Your task to perform on an android device: Go to CNN.com Image 0: 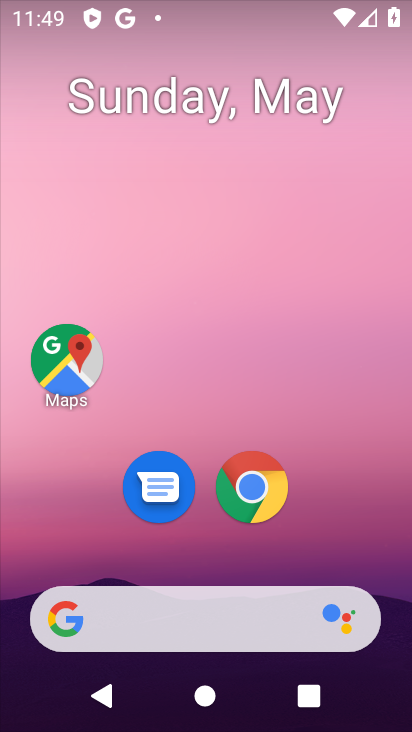
Step 0: click (254, 476)
Your task to perform on an android device: Go to CNN.com Image 1: 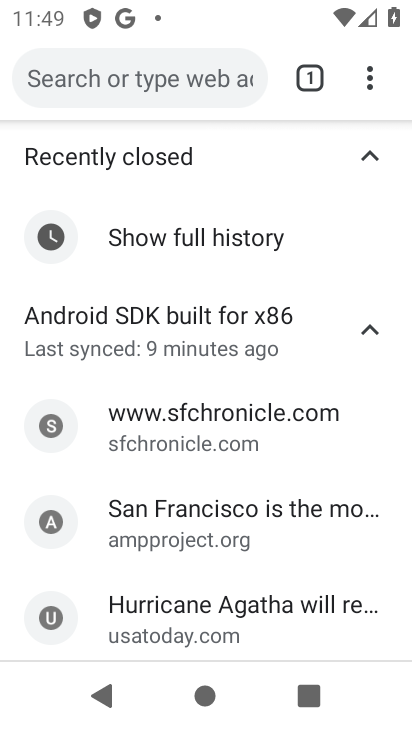
Step 1: click (180, 71)
Your task to perform on an android device: Go to CNN.com Image 2: 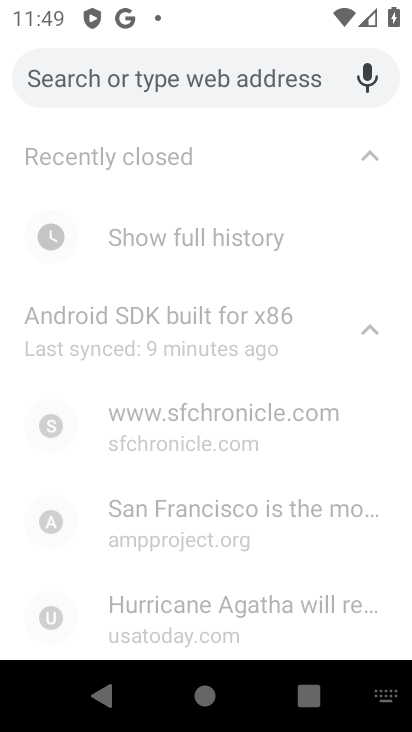
Step 2: type "CNN.com"
Your task to perform on an android device: Go to CNN.com Image 3: 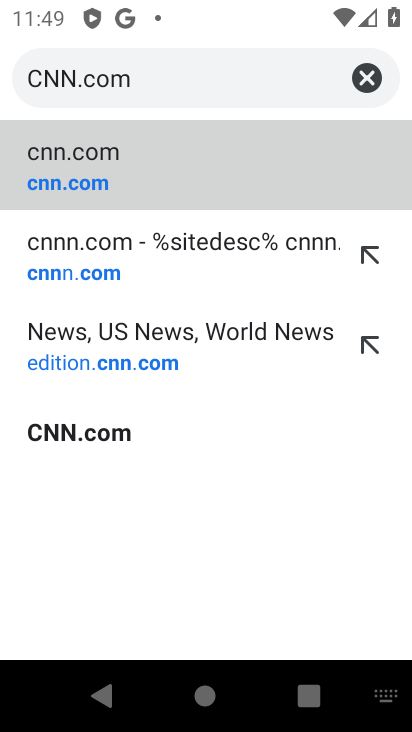
Step 3: click (71, 164)
Your task to perform on an android device: Go to CNN.com Image 4: 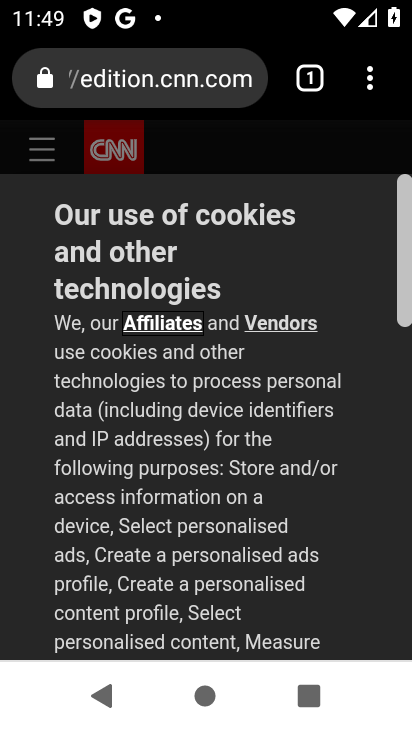
Step 4: task complete